Your task to perform on an android device: Go to notification settings Image 0: 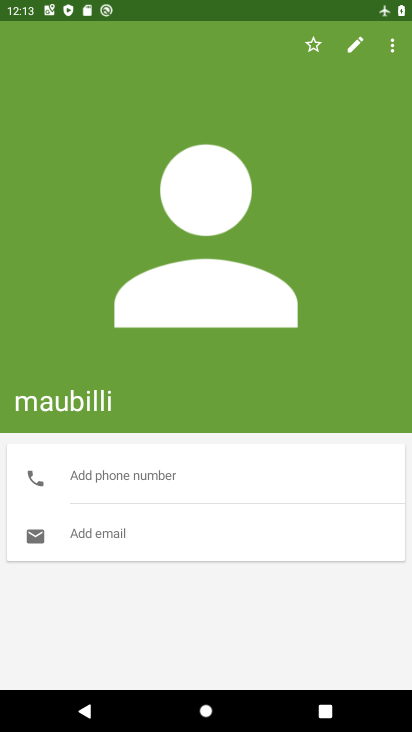
Step 0: press home button
Your task to perform on an android device: Go to notification settings Image 1: 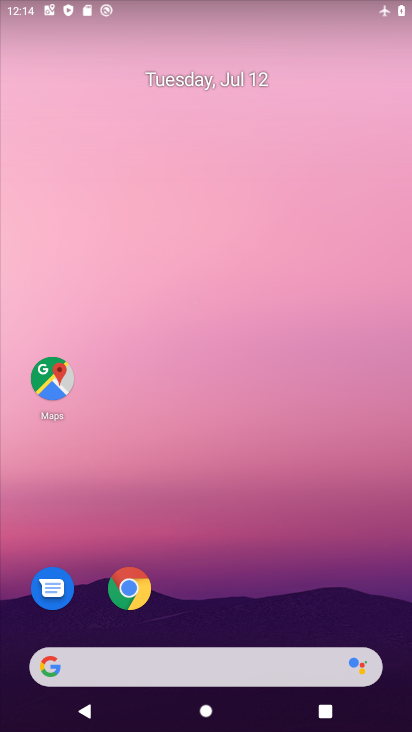
Step 1: drag from (256, 587) to (196, 158)
Your task to perform on an android device: Go to notification settings Image 2: 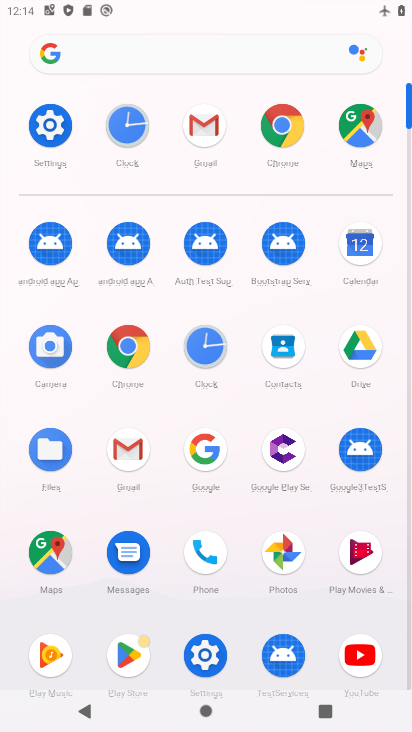
Step 2: click (58, 123)
Your task to perform on an android device: Go to notification settings Image 3: 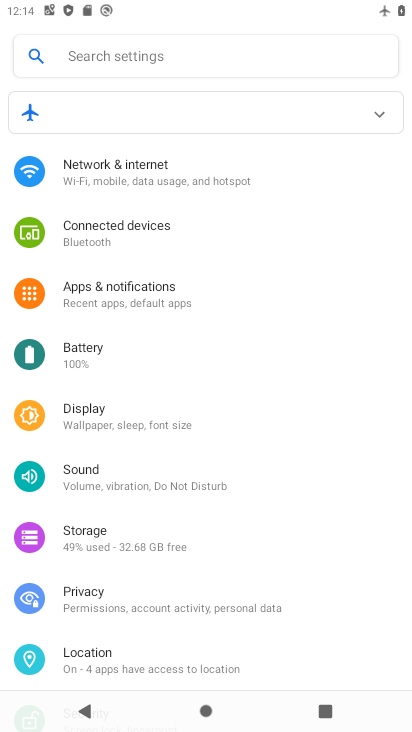
Step 3: click (154, 306)
Your task to perform on an android device: Go to notification settings Image 4: 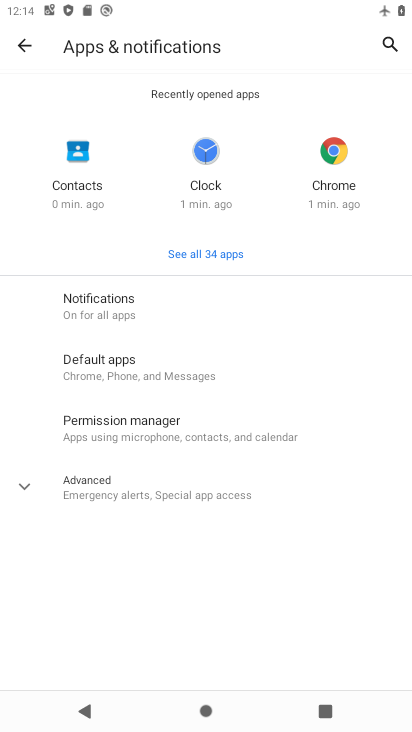
Step 4: click (85, 308)
Your task to perform on an android device: Go to notification settings Image 5: 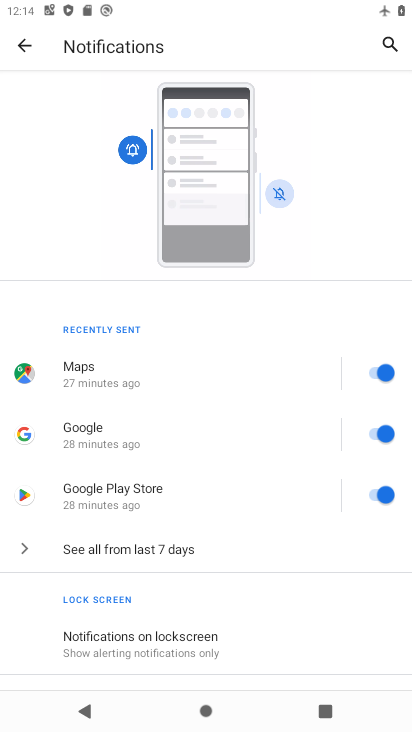
Step 5: task complete